Your task to perform on an android device: toggle notification dots Image 0: 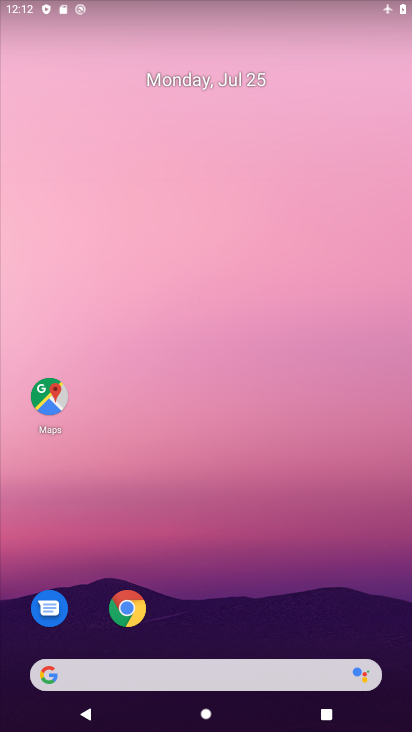
Step 0: drag from (249, 548) to (211, 66)
Your task to perform on an android device: toggle notification dots Image 1: 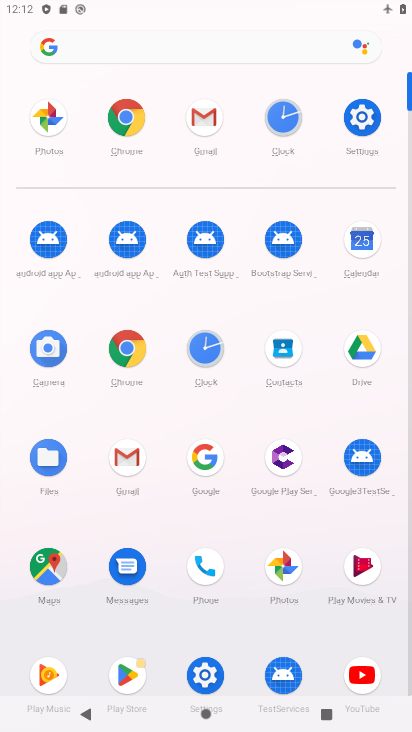
Step 1: click (355, 135)
Your task to perform on an android device: toggle notification dots Image 2: 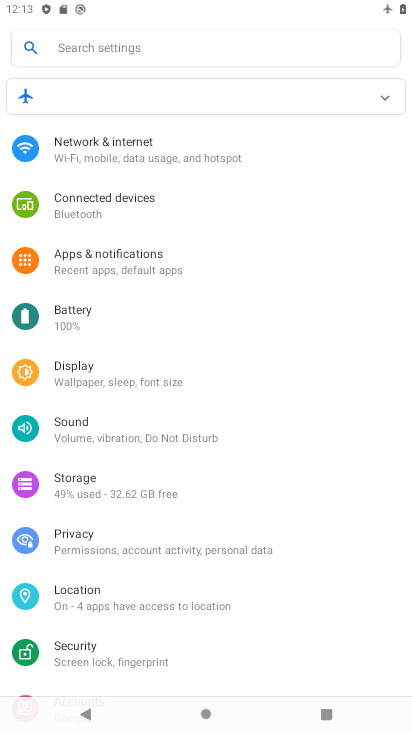
Step 2: click (122, 255)
Your task to perform on an android device: toggle notification dots Image 3: 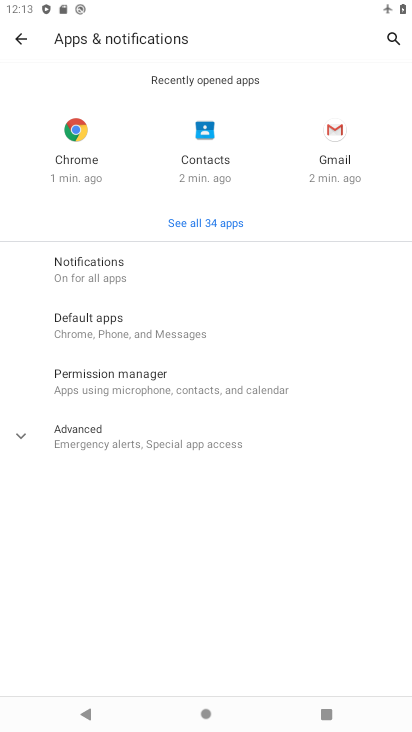
Step 3: click (150, 280)
Your task to perform on an android device: toggle notification dots Image 4: 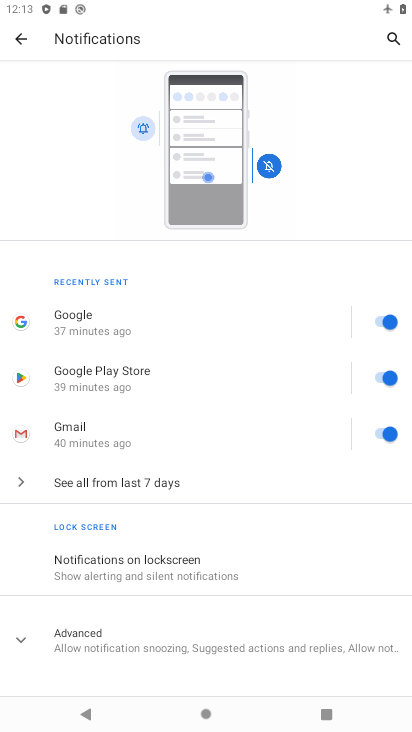
Step 4: drag from (182, 547) to (169, 269)
Your task to perform on an android device: toggle notification dots Image 5: 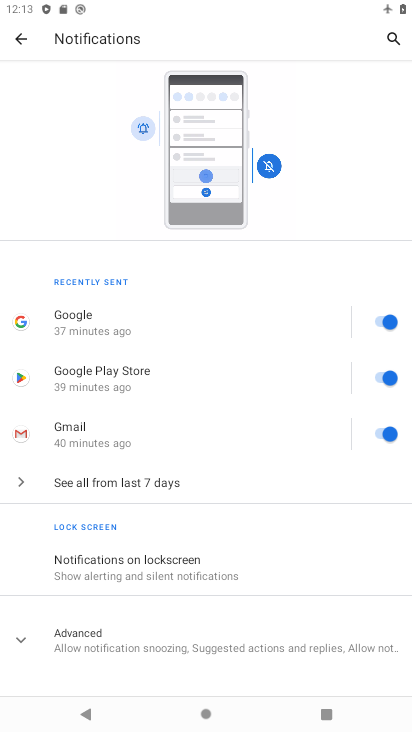
Step 5: click (163, 638)
Your task to perform on an android device: toggle notification dots Image 6: 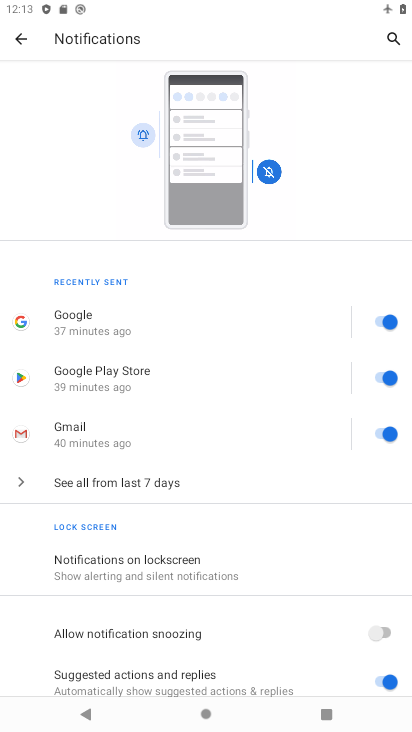
Step 6: drag from (279, 648) to (255, 342)
Your task to perform on an android device: toggle notification dots Image 7: 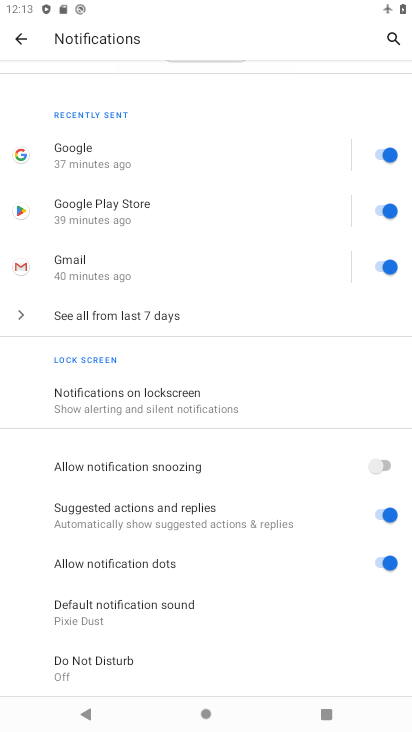
Step 7: click (385, 561)
Your task to perform on an android device: toggle notification dots Image 8: 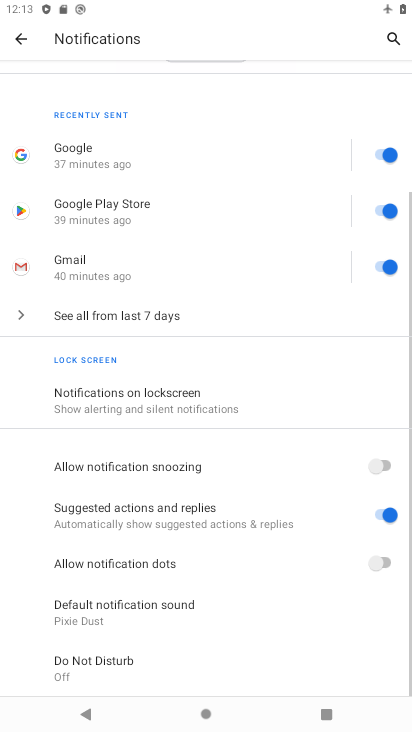
Step 8: task complete